Your task to perform on an android device: add a contact Image 0: 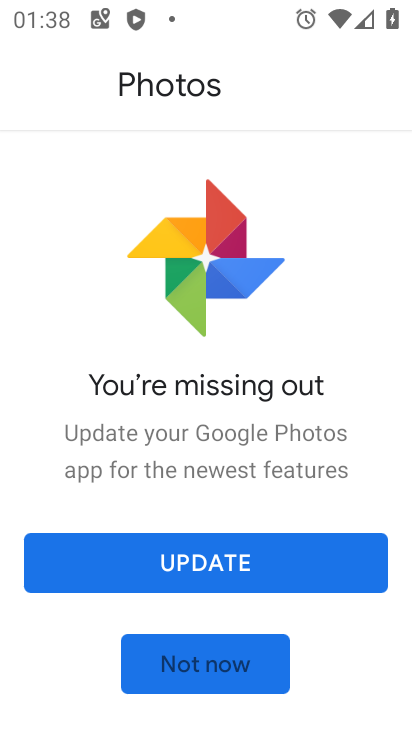
Step 0: press home button
Your task to perform on an android device: add a contact Image 1: 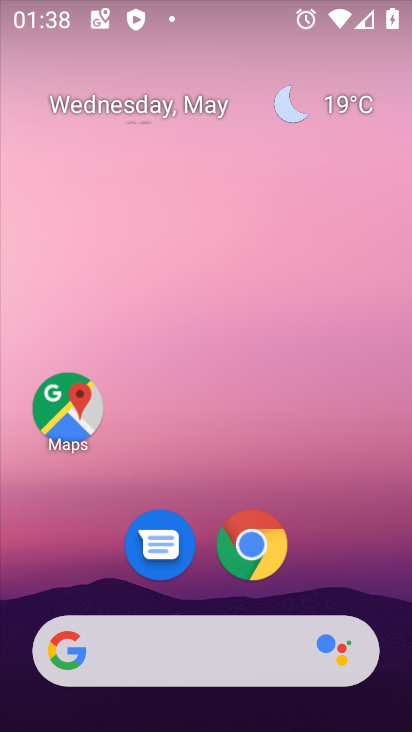
Step 1: drag from (365, 568) to (302, 127)
Your task to perform on an android device: add a contact Image 2: 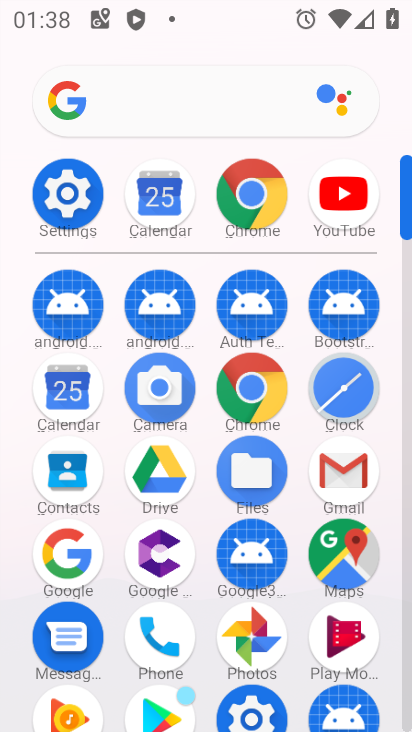
Step 2: click (67, 478)
Your task to perform on an android device: add a contact Image 3: 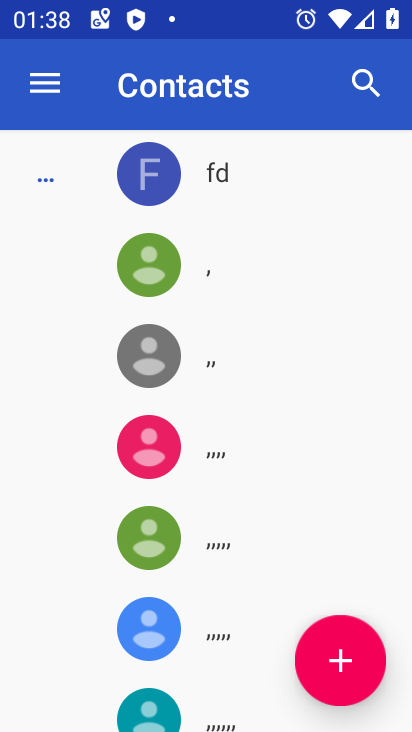
Step 3: click (329, 629)
Your task to perform on an android device: add a contact Image 4: 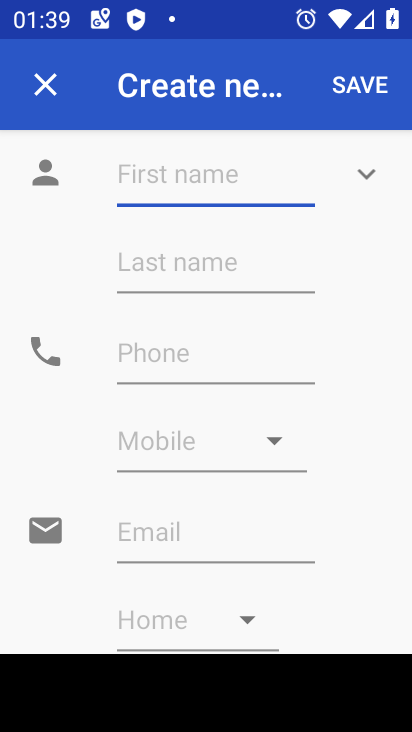
Step 4: type "history"
Your task to perform on an android device: add a contact Image 5: 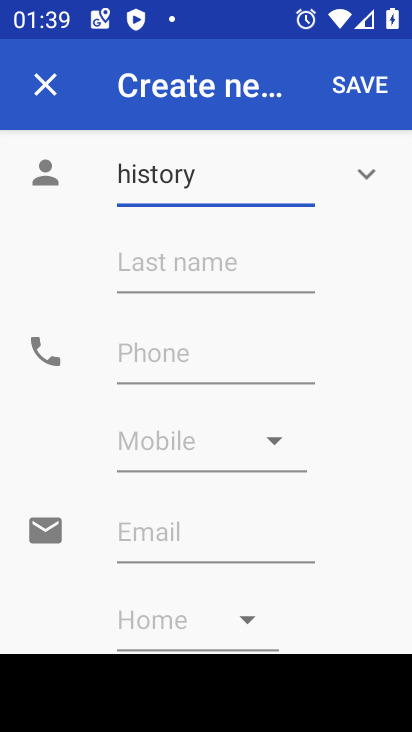
Step 5: click (346, 79)
Your task to perform on an android device: add a contact Image 6: 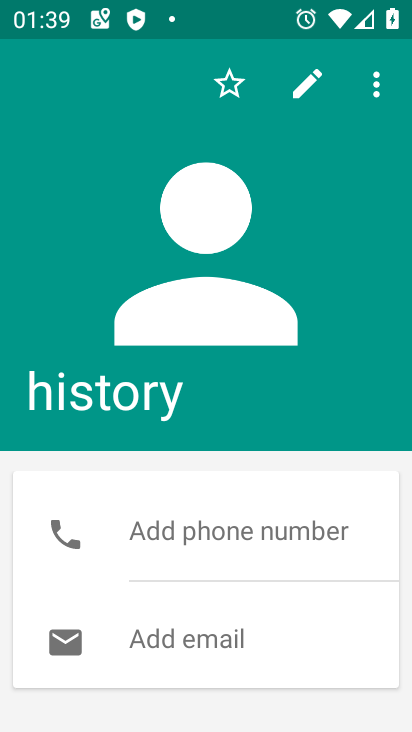
Step 6: task complete